Your task to perform on an android device: Show me productivity apps on the Play Store Image 0: 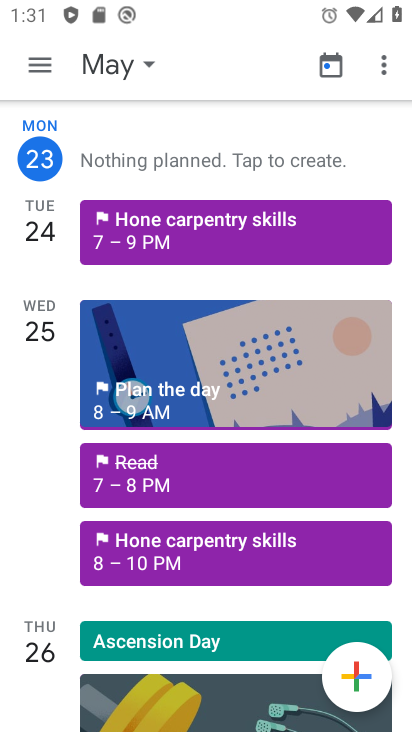
Step 0: press home button
Your task to perform on an android device: Show me productivity apps on the Play Store Image 1: 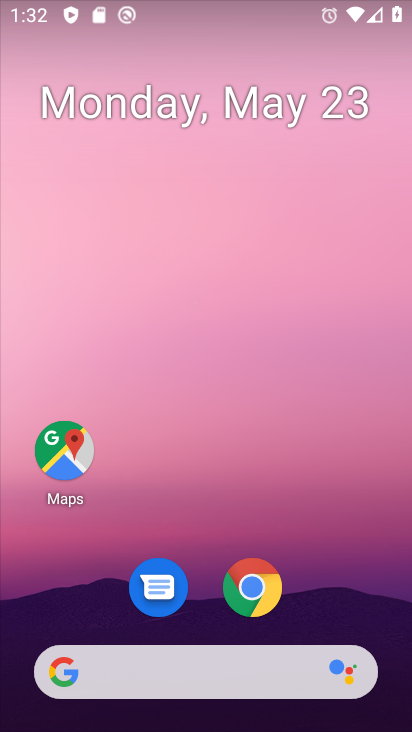
Step 1: drag from (363, 604) to (344, 251)
Your task to perform on an android device: Show me productivity apps on the Play Store Image 2: 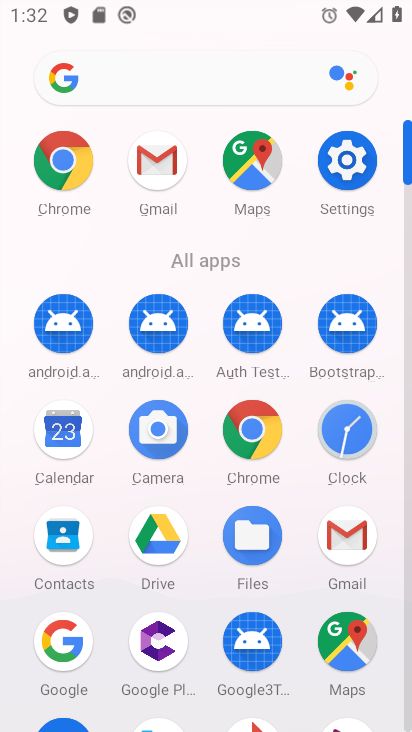
Step 2: click (406, 677)
Your task to perform on an android device: Show me productivity apps on the Play Store Image 3: 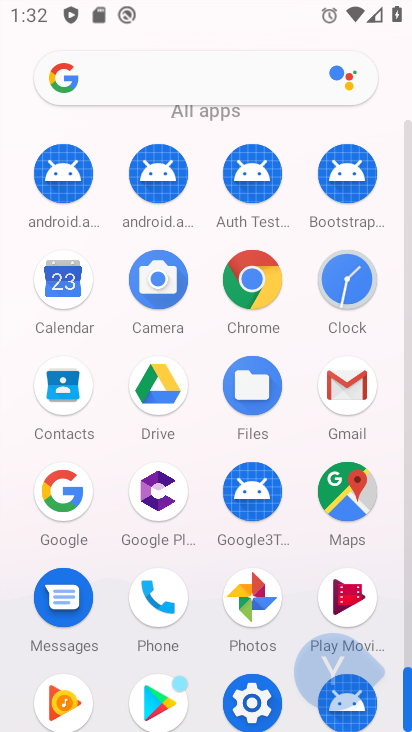
Step 3: click (406, 677)
Your task to perform on an android device: Show me productivity apps on the Play Store Image 4: 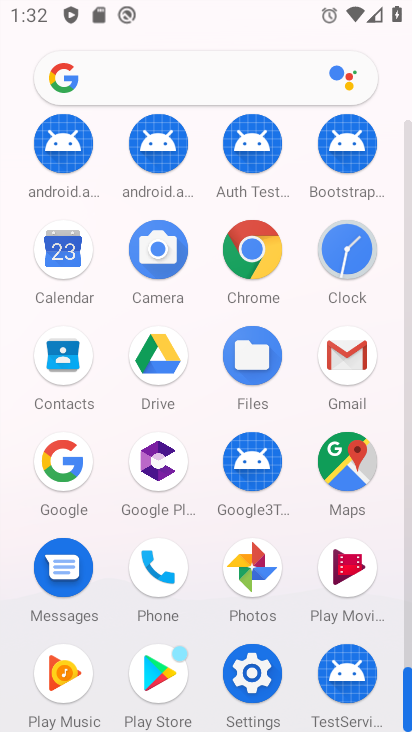
Step 4: click (160, 677)
Your task to perform on an android device: Show me productivity apps on the Play Store Image 5: 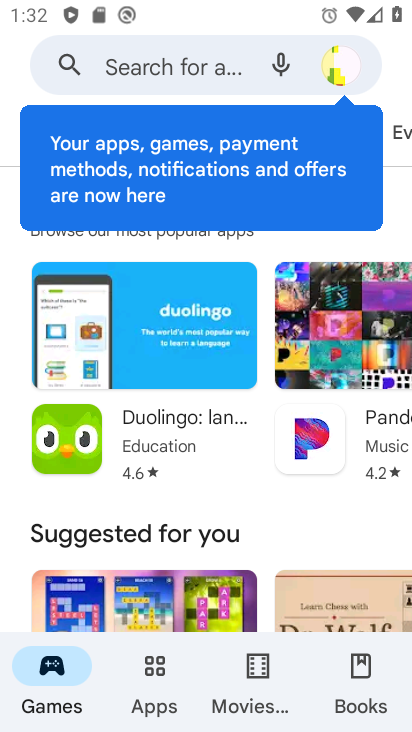
Step 5: click (343, 205)
Your task to perform on an android device: Show me productivity apps on the Play Store Image 6: 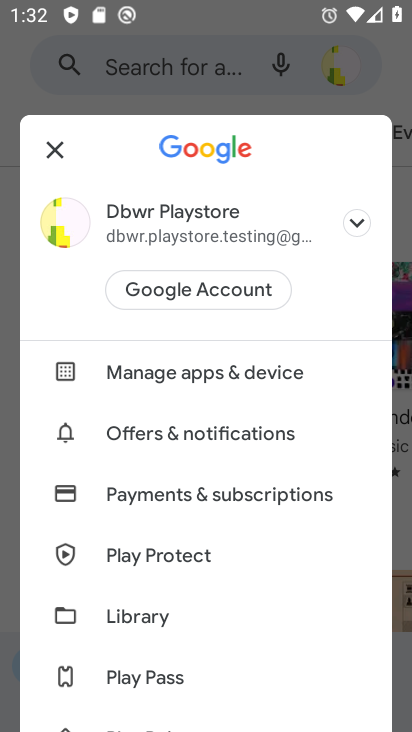
Step 6: click (65, 142)
Your task to perform on an android device: Show me productivity apps on the Play Store Image 7: 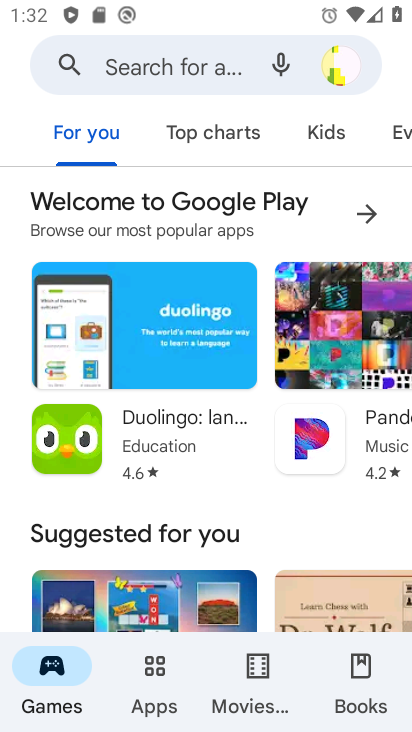
Step 7: click (212, 151)
Your task to perform on an android device: Show me productivity apps on the Play Store Image 8: 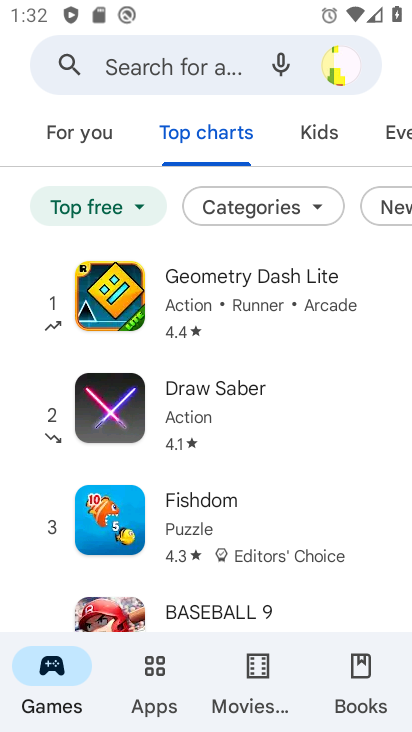
Step 8: click (152, 681)
Your task to perform on an android device: Show me productivity apps on the Play Store Image 9: 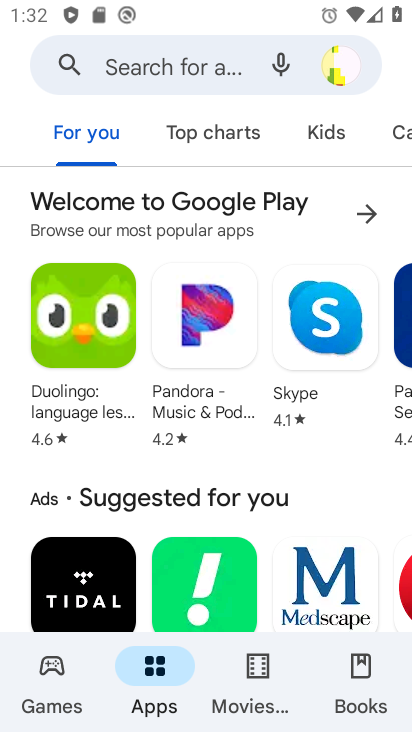
Step 9: click (152, 681)
Your task to perform on an android device: Show me productivity apps on the Play Store Image 10: 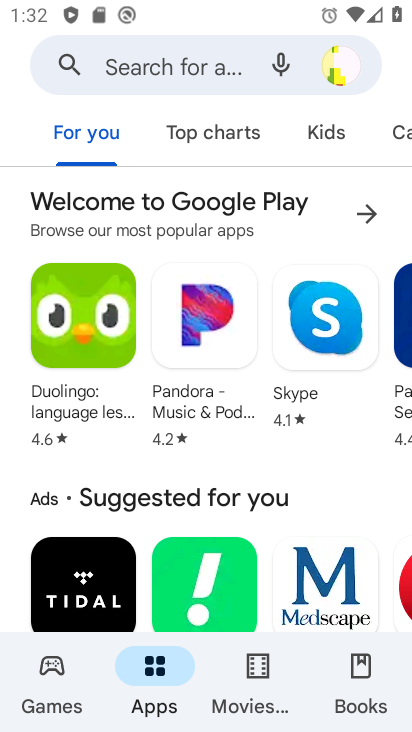
Step 10: click (219, 139)
Your task to perform on an android device: Show me productivity apps on the Play Store Image 11: 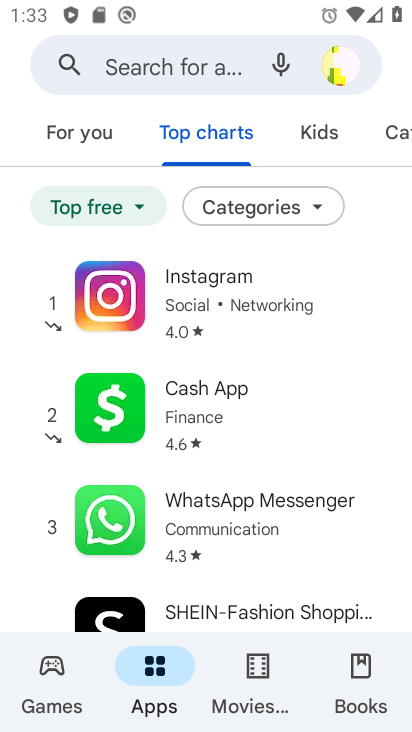
Step 11: click (256, 201)
Your task to perform on an android device: Show me productivity apps on the Play Store Image 12: 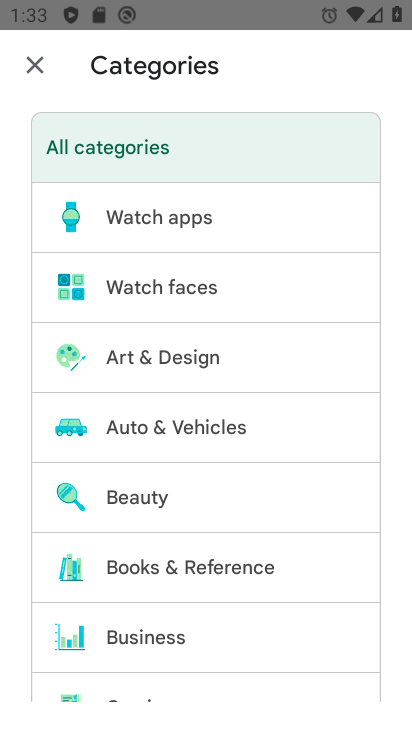
Step 12: drag from (204, 591) to (249, 212)
Your task to perform on an android device: Show me productivity apps on the Play Store Image 13: 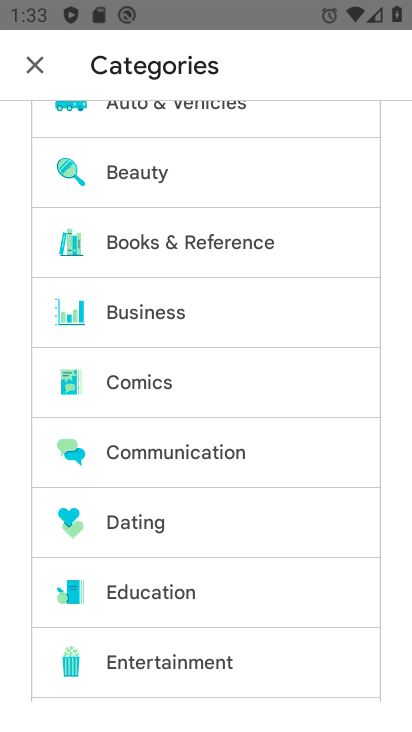
Step 13: drag from (262, 602) to (267, 408)
Your task to perform on an android device: Show me productivity apps on the Play Store Image 14: 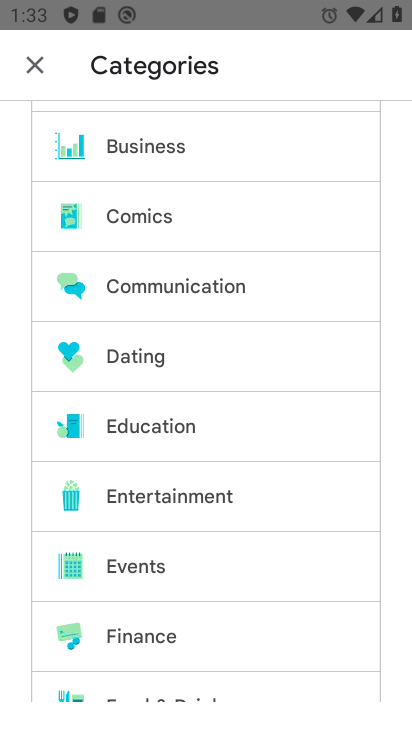
Step 14: drag from (209, 662) to (212, 526)
Your task to perform on an android device: Show me productivity apps on the Play Store Image 15: 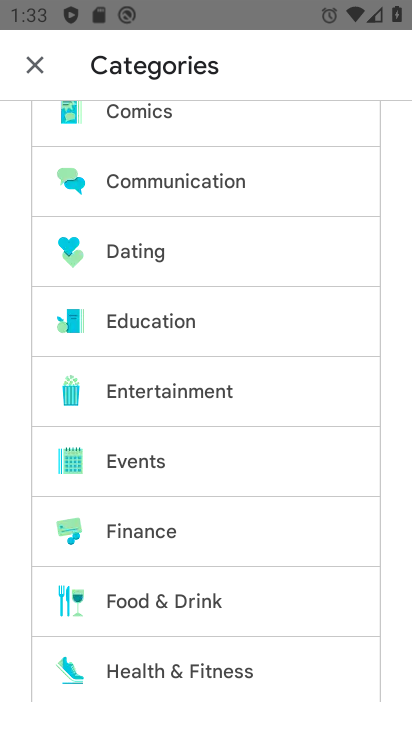
Step 15: drag from (164, 662) to (169, 496)
Your task to perform on an android device: Show me productivity apps on the Play Store Image 16: 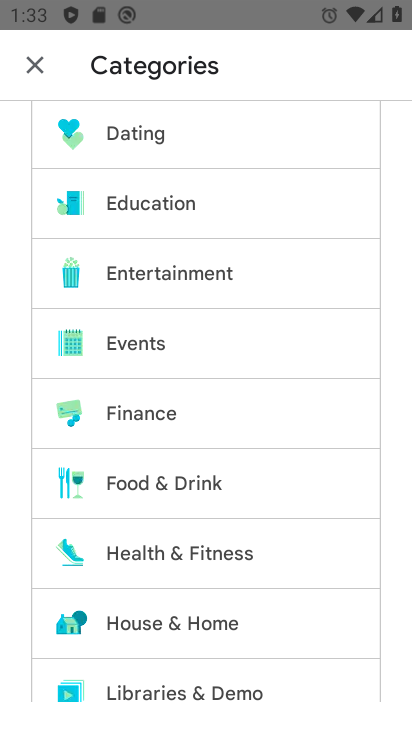
Step 16: drag from (159, 667) to (174, 393)
Your task to perform on an android device: Show me productivity apps on the Play Store Image 17: 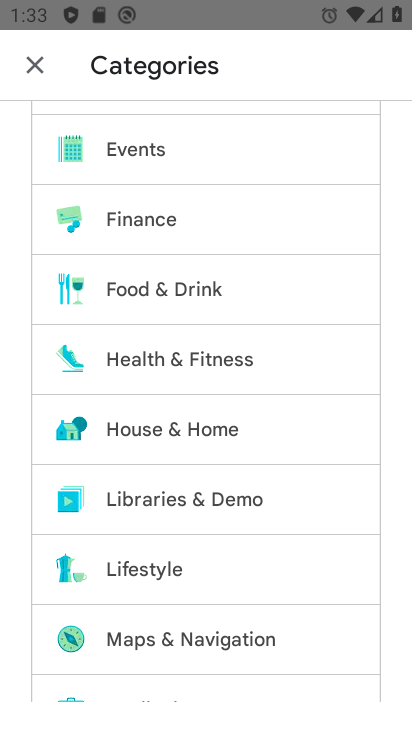
Step 17: drag from (163, 588) to (191, 395)
Your task to perform on an android device: Show me productivity apps on the Play Store Image 18: 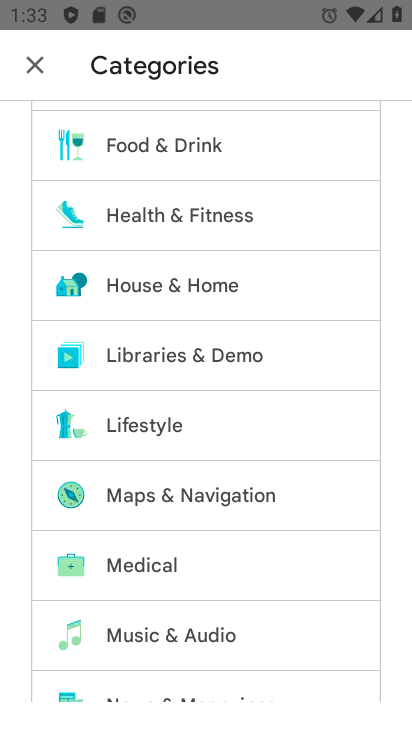
Step 18: drag from (185, 566) to (184, 406)
Your task to perform on an android device: Show me productivity apps on the Play Store Image 19: 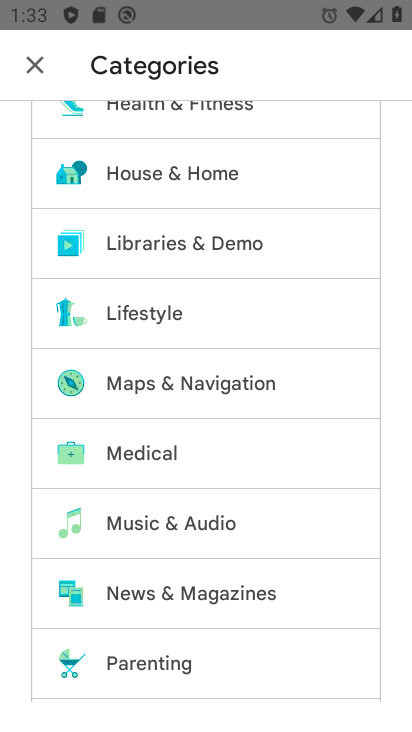
Step 19: drag from (177, 571) to (177, 458)
Your task to perform on an android device: Show me productivity apps on the Play Store Image 20: 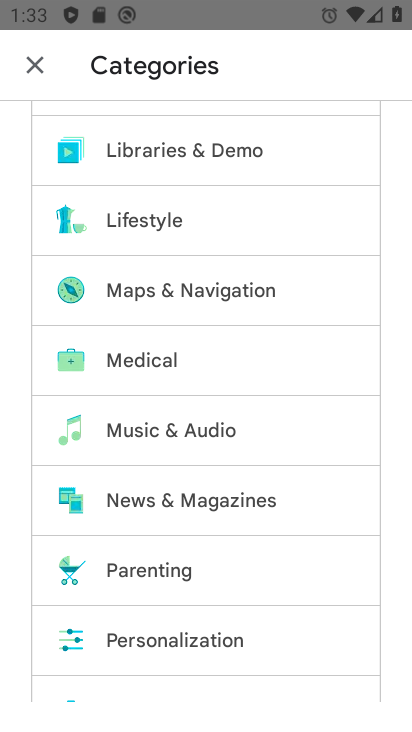
Step 20: drag from (166, 682) to (184, 471)
Your task to perform on an android device: Show me productivity apps on the Play Store Image 21: 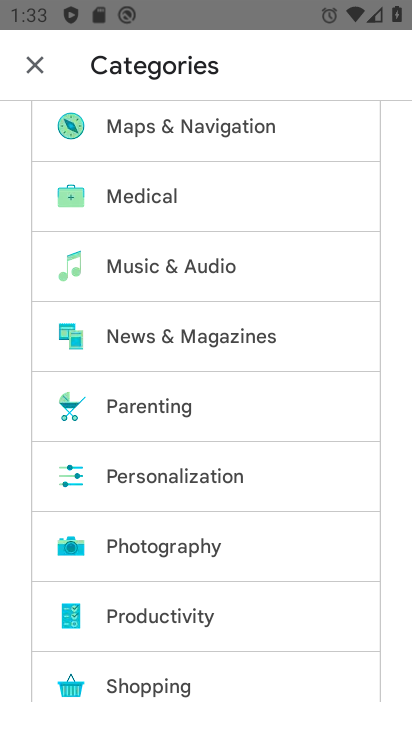
Step 21: click (198, 629)
Your task to perform on an android device: Show me productivity apps on the Play Store Image 22: 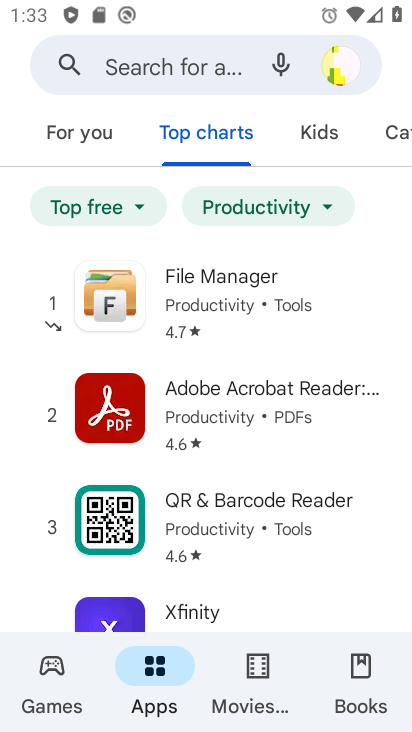
Step 22: task complete